Your task to perform on an android device: set an alarm Image 0: 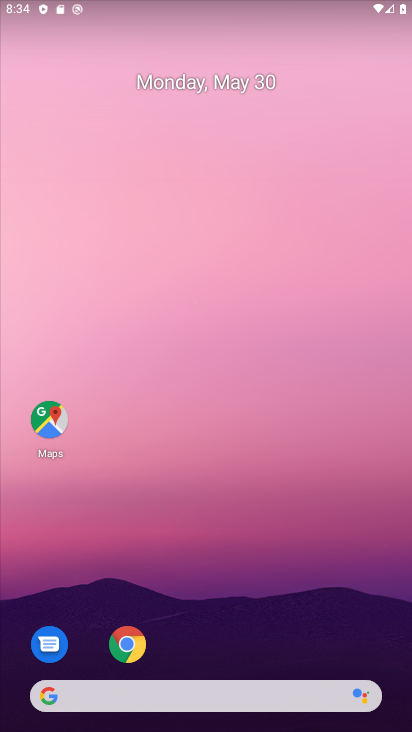
Step 0: drag from (378, 652) to (348, 199)
Your task to perform on an android device: set an alarm Image 1: 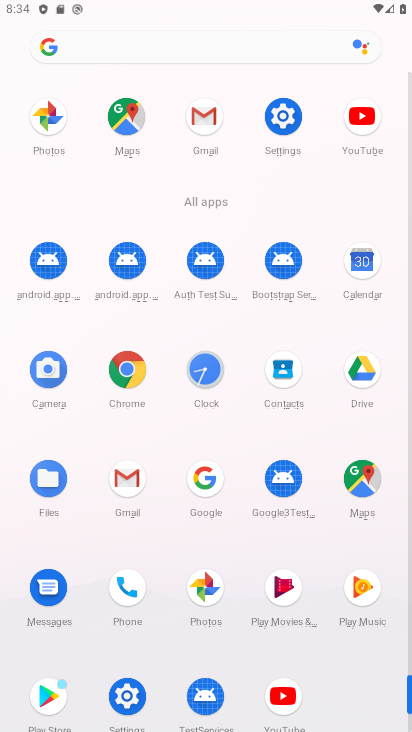
Step 1: click (203, 363)
Your task to perform on an android device: set an alarm Image 2: 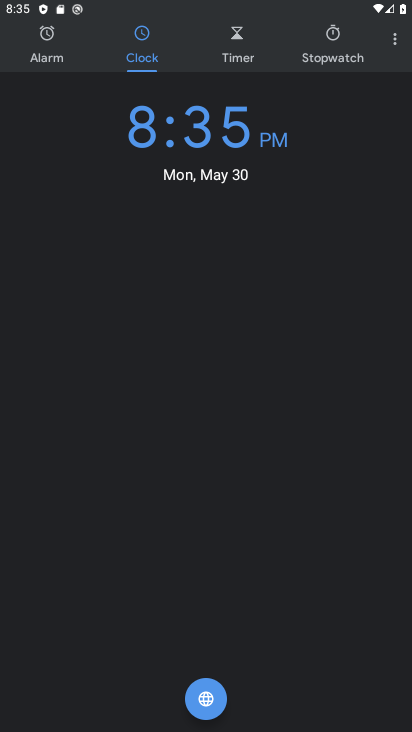
Step 2: click (57, 46)
Your task to perform on an android device: set an alarm Image 3: 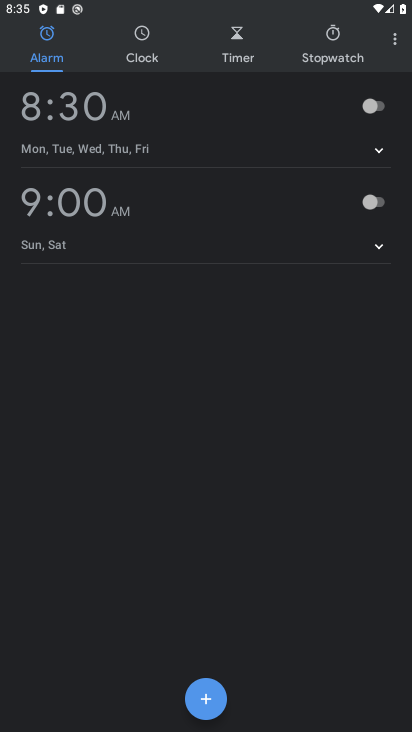
Step 3: click (77, 105)
Your task to perform on an android device: set an alarm Image 4: 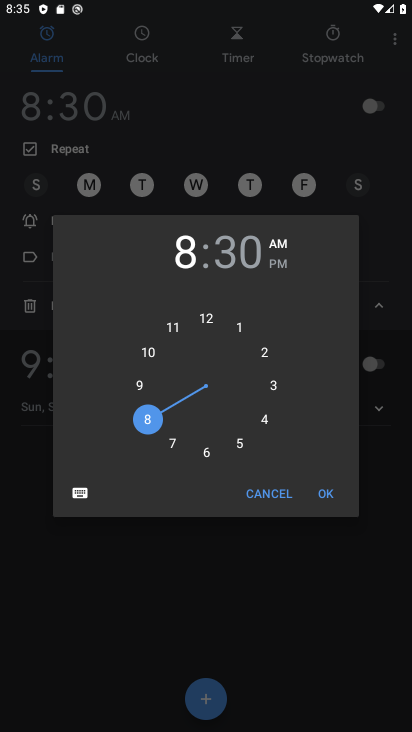
Step 4: click (209, 453)
Your task to perform on an android device: set an alarm Image 5: 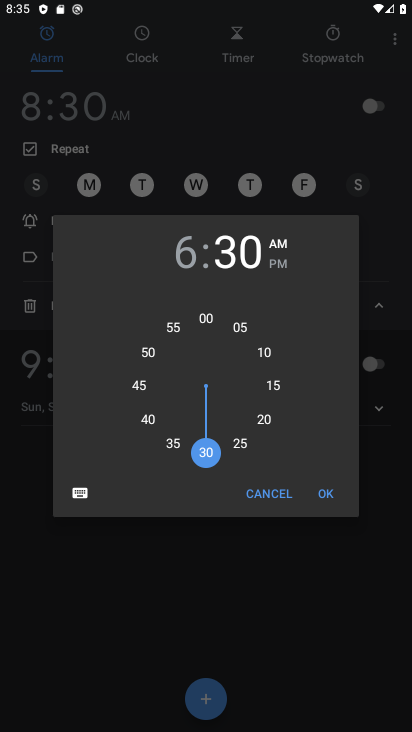
Step 5: click (270, 388)
Your task to perform on an android device: set an alarm Image 6: 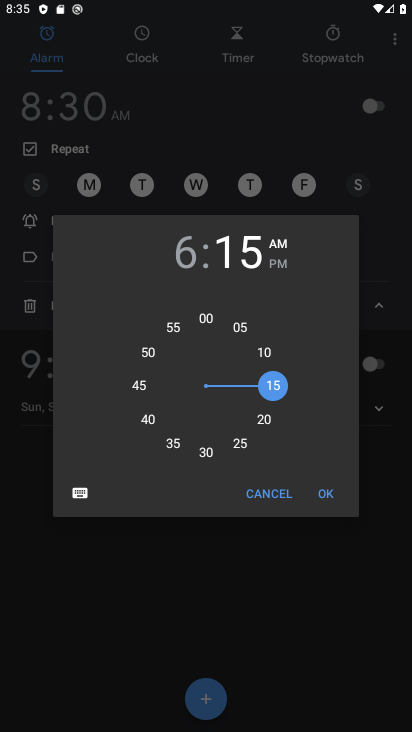
Step 6: click (326, 494)
Your task to perform on an android device: set an alarm Image 7: 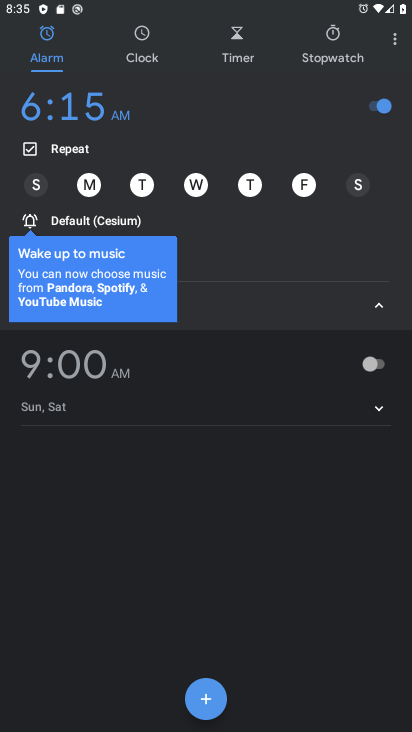
Step 7: click (356, 184)
Your task to perform on an android device: set an alarm Image 8: 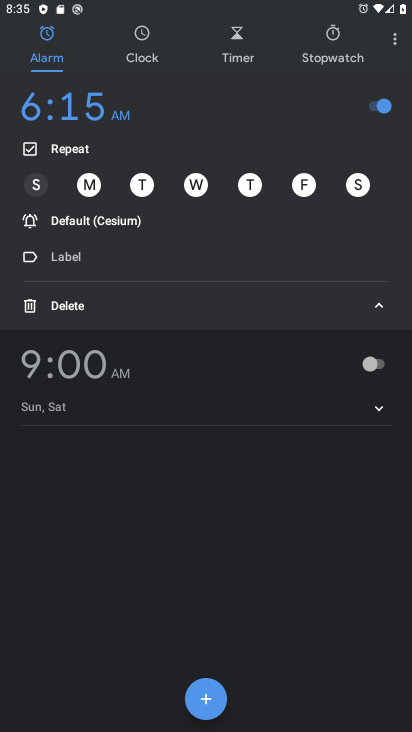
Step 8: click (379, 308)
Your task to perform on an android device: set an alarm Image 9: 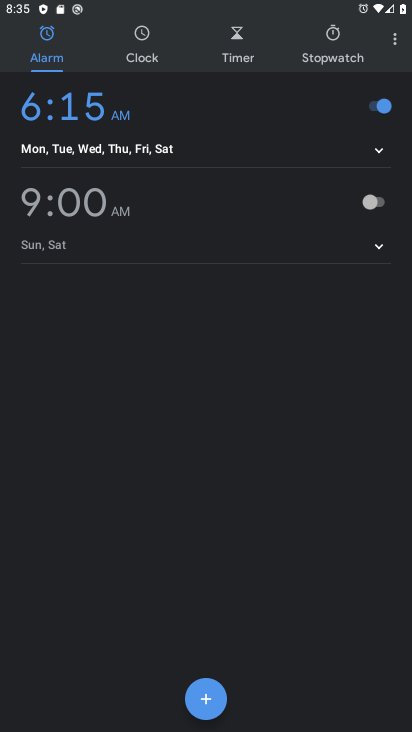
Step 9: task complete